Your task to perform on an android device: turn smart compose on in the gmail app Image 0: 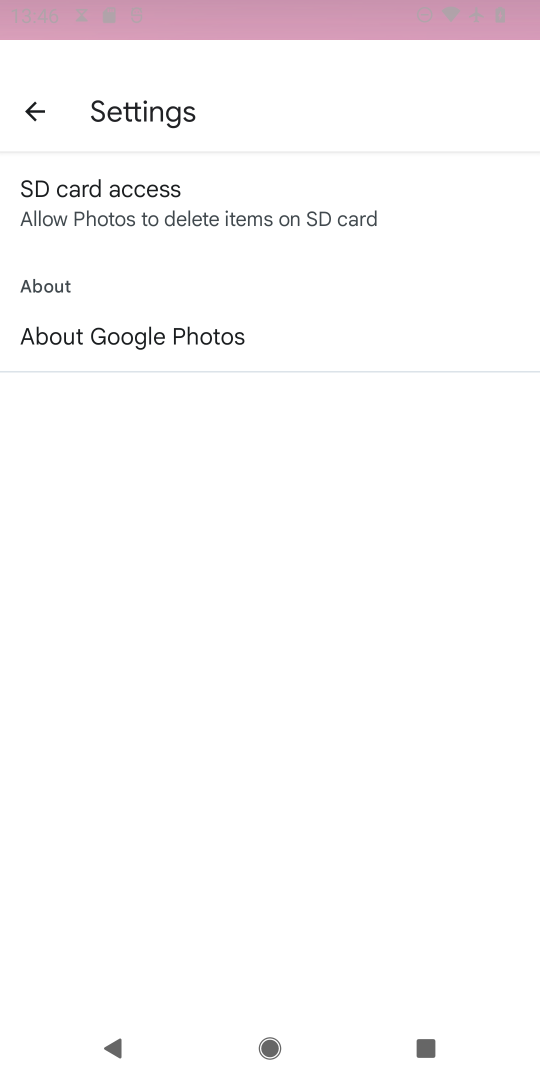
Step 0: press home button
Your task to perform on an android device: turn smart compose on in the gmail app Image 1: 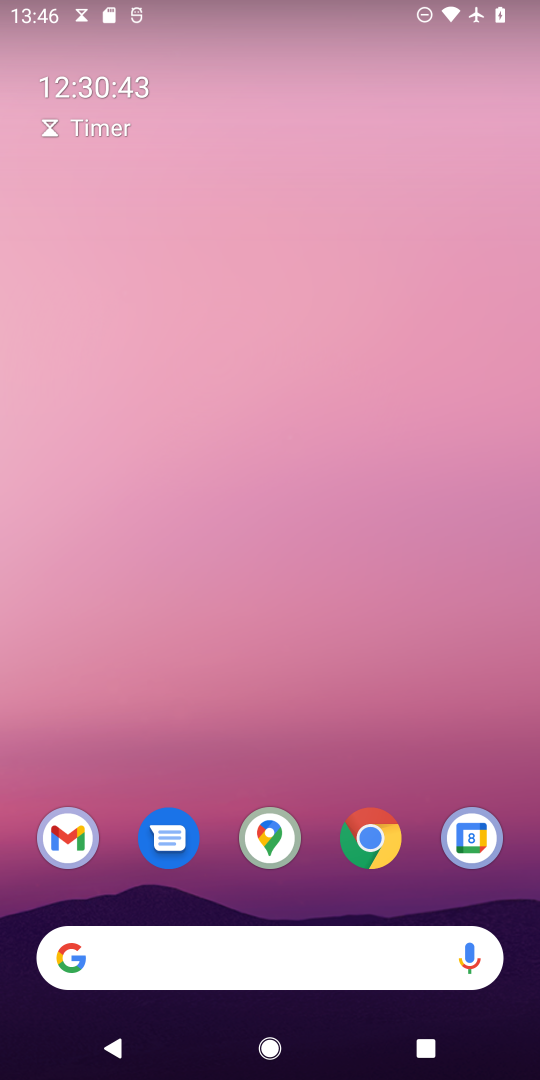
Step 1: click (56, 832)
Your task to perform on an android device: turn smart compose on in the gmail app Image 2: 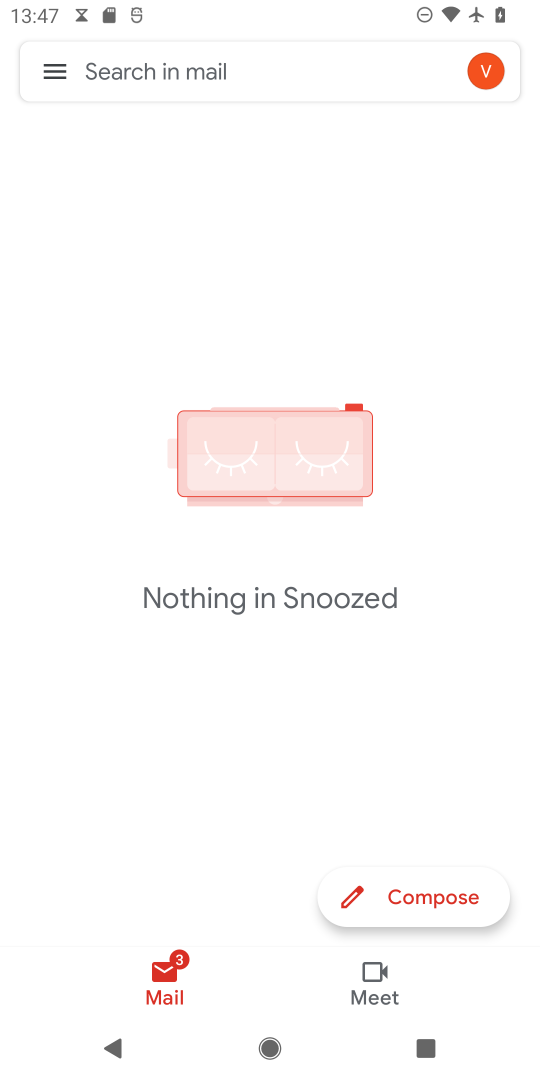
Step 2: click (54, 79)
Your task to perform on an android device: turn smart compose on in the gmail app Image 3: 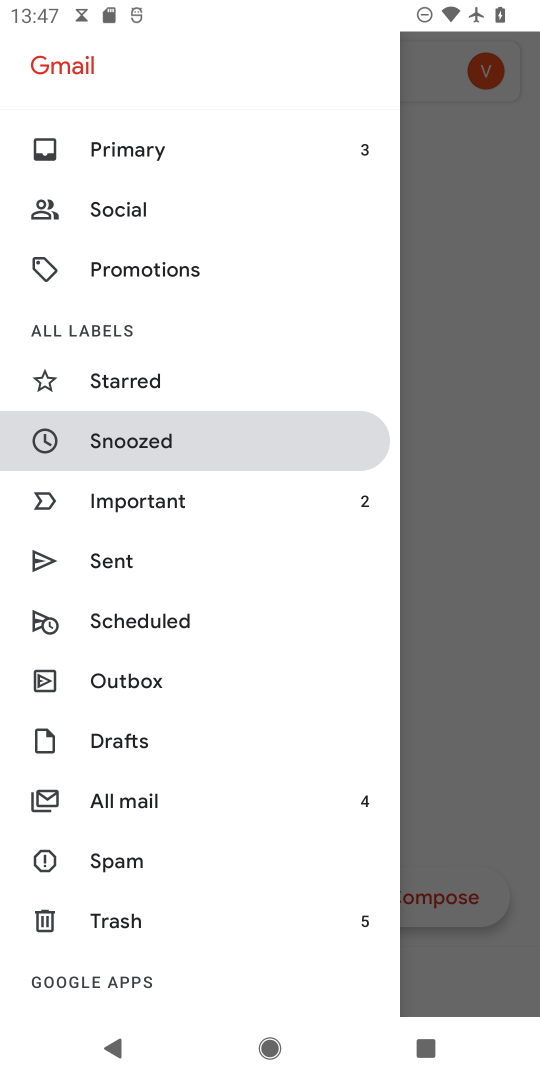
Step 3: drag from (257, 873) to (218, 35)
Your task to perform on an android device: turn smart compose on in the gmail app Image 4: 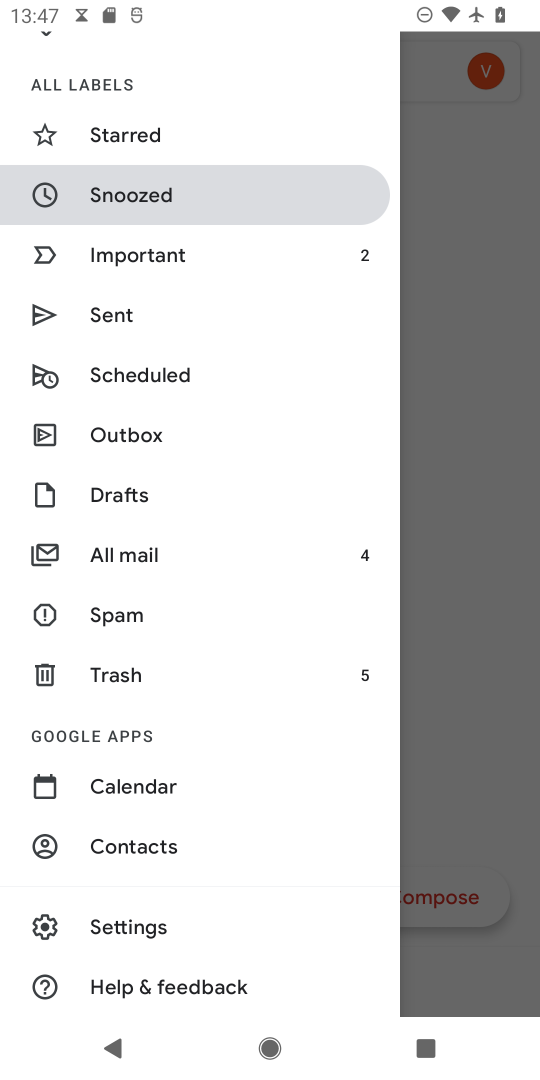
Step 4: click (143, 932)
Your task to perform on an android device: turn smart compose on in the gmail app Image 5: 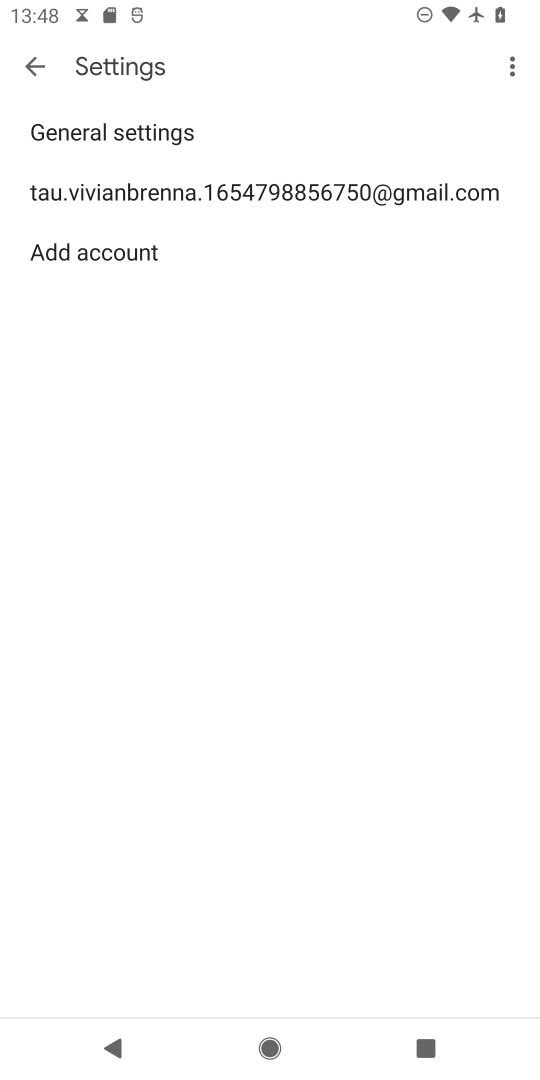
Step 5: click (222, 191)
Your task to perform on an android device: turn smart compose on in the gmail app Image 6: 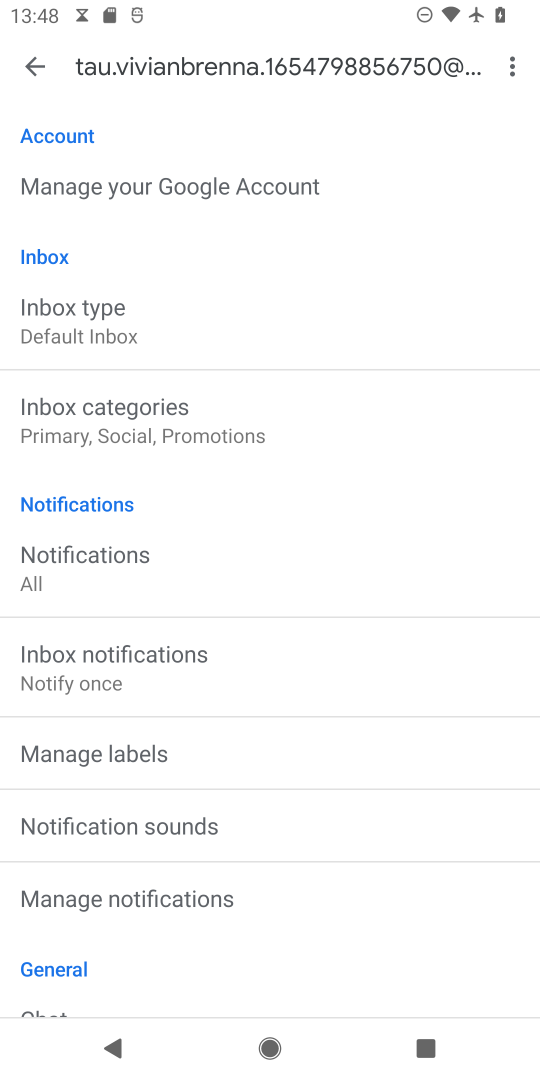
Step 6: task complete